Your task to perform on an android device: Open Android settings Image 0: 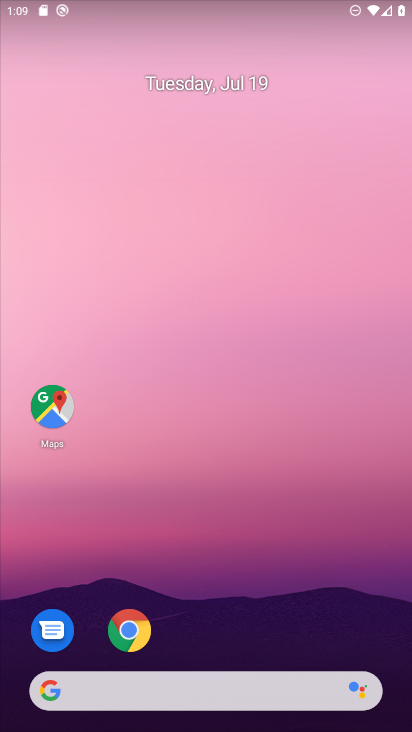
Step 0: press home button
Your task to perform on an android device: Open Android settings Image 1: 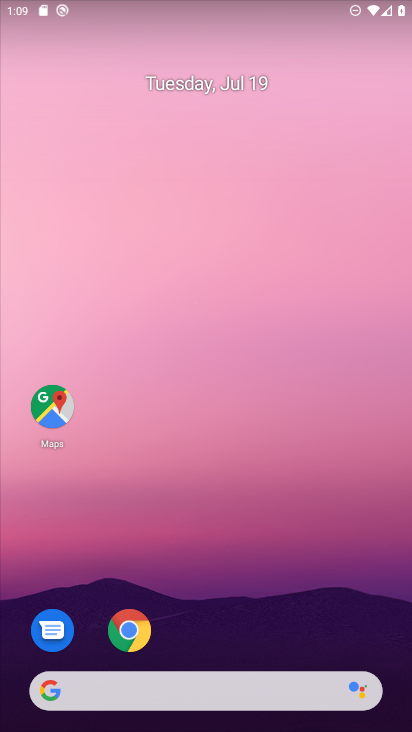
Step 1: drag from (168, 672) to (324, 80)
Your task to perform on an android device: Open Android settings Image 2: 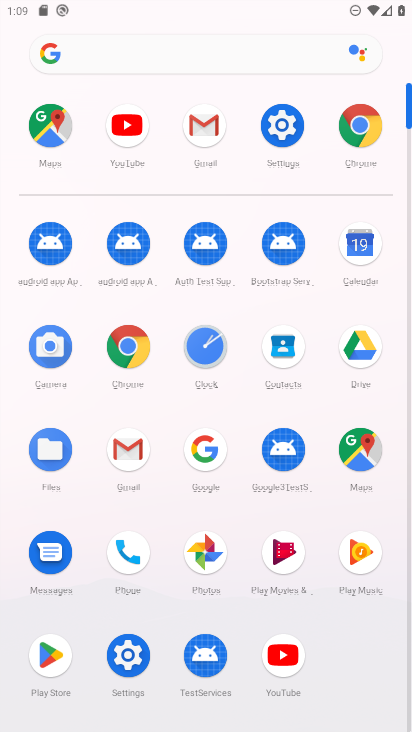
Step 2: click (284, 129)
Your task to perform on an android device: Open Android settings Image 3: 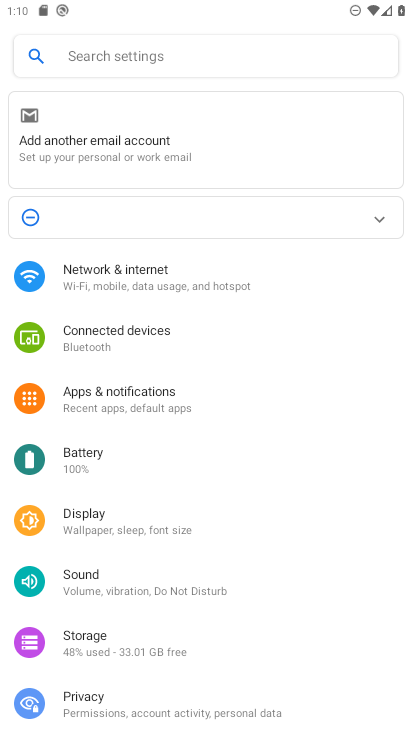
Step 3: task complete